Your task to perform on an android device: Go to Google Image 0: 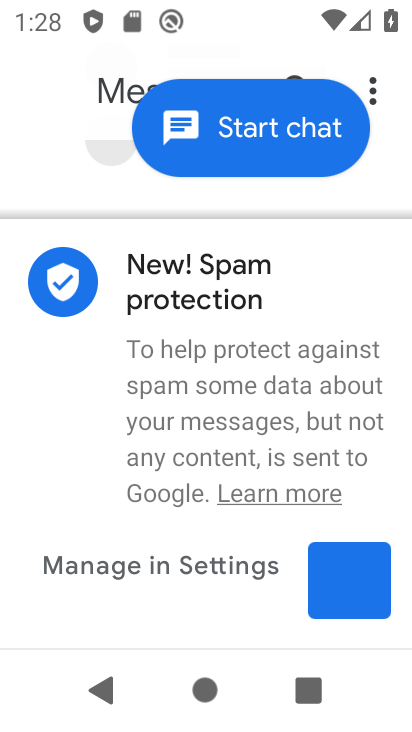
Step 0: press home button
Your task to perform on an android device: Go to Google Image 1: 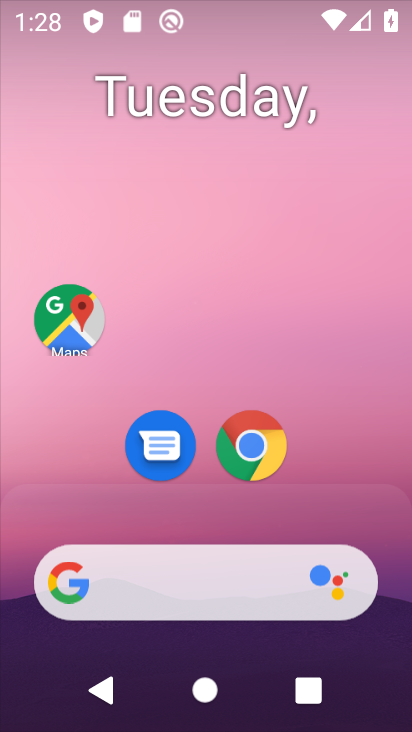
Step 1: drag from (218, 728) to (216, 141)
Your task to perform on an android device: Go to Google Image 2: 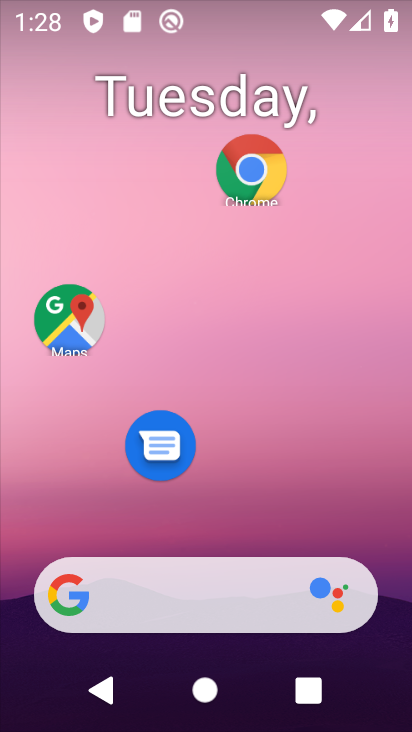
Step 2: drag from (242, 727) to (239, 23)
Your task to perform on an android device: Go to Google Image 3: 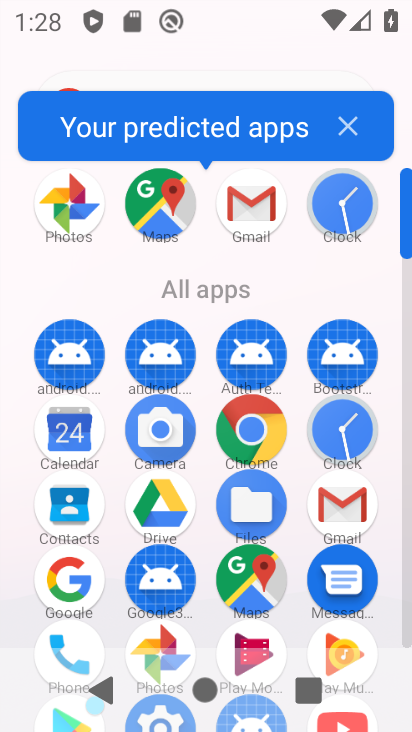
Step 3: click (69, 570)
Your task to perform on an android device: Go to Google Image 4: 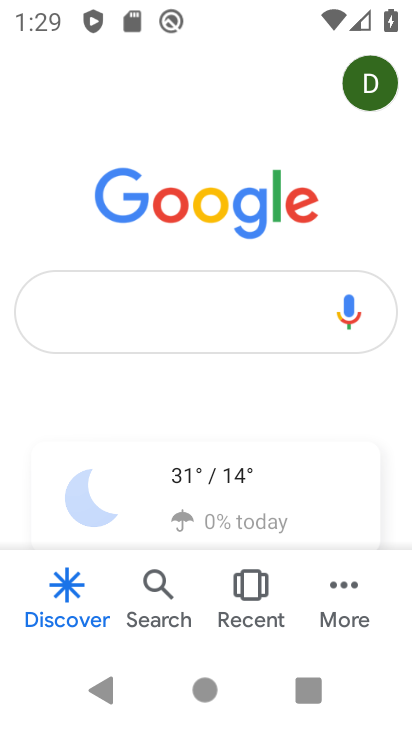
Step 4: task complete